Your task to perform on an android device: Clear the shopping cart on target.com. Image 0: 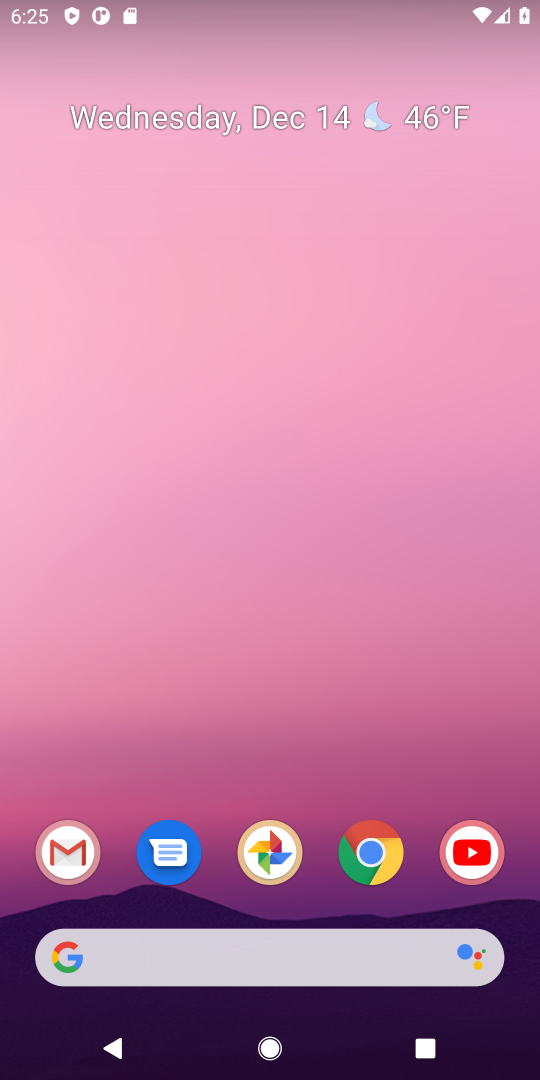
Step 0: click (373, 855)
Your task to perform on an android device: Clear the shopping cart on target.com. Image 1: 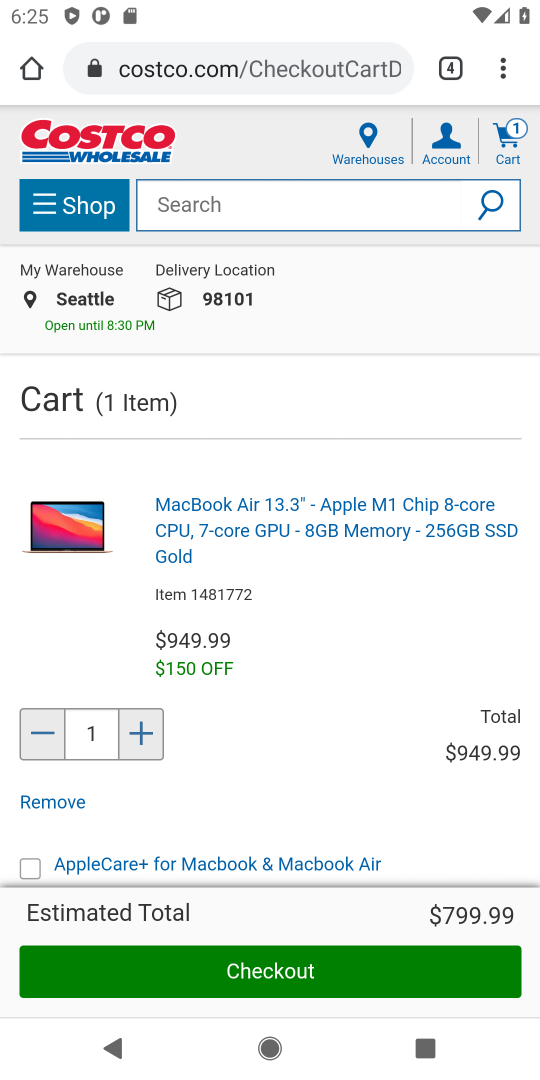
Step 1: click (444, 70)
Your task to perform on an android device: Clear the shopping cart on target.com. Image 2: 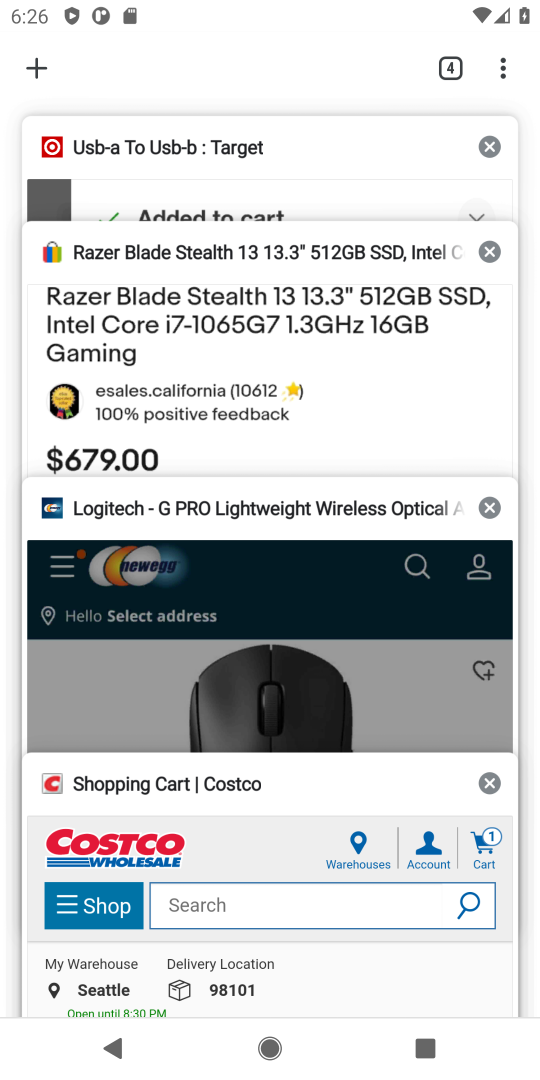
Step 2: click (319, 150)
Your task to perform on an android device: Clear the shopping cart on target.com. Image 3: 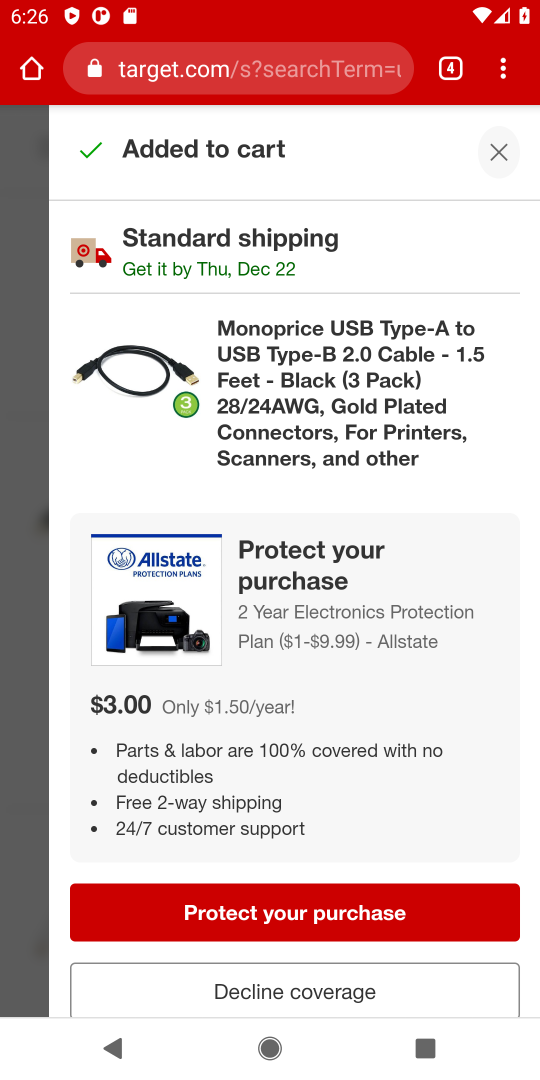
Step 3: click (504, 150)
Your task to perform on an android device: Clear the shopping cart on target.com. Image 4: 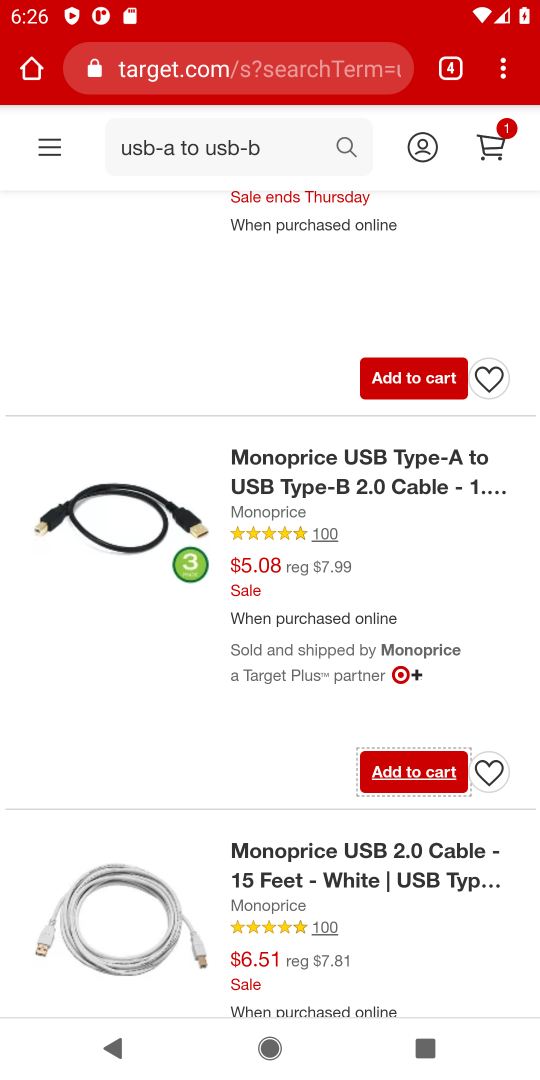
Step 4: click (490, 139)
Your task to perform on an android device: Clear the shopping cart on target.com. Image 5: 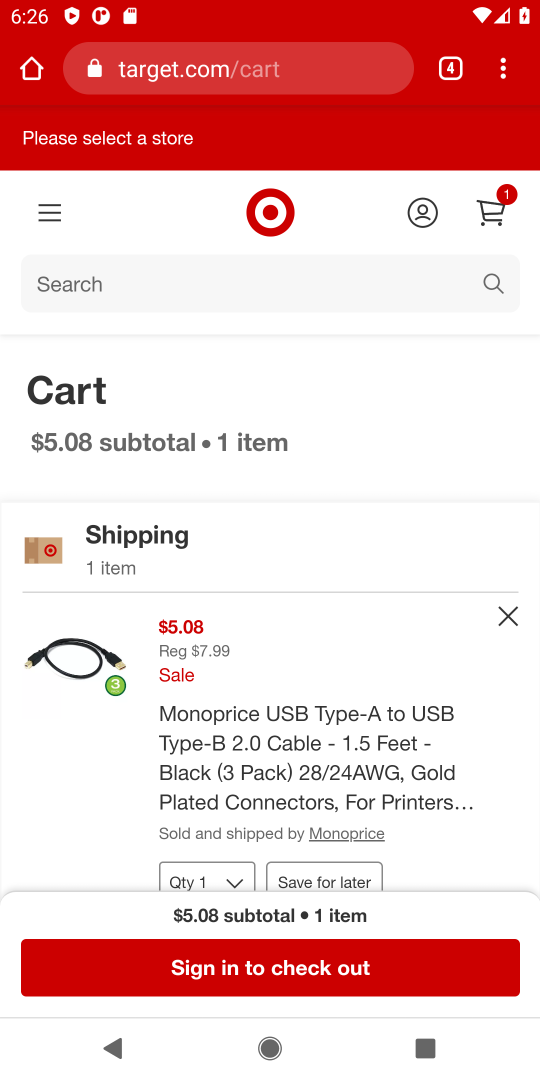
Step 5: click (508, 611)
Your task to perform on an android device: Clear the shopping cart on target.com. Image 6: 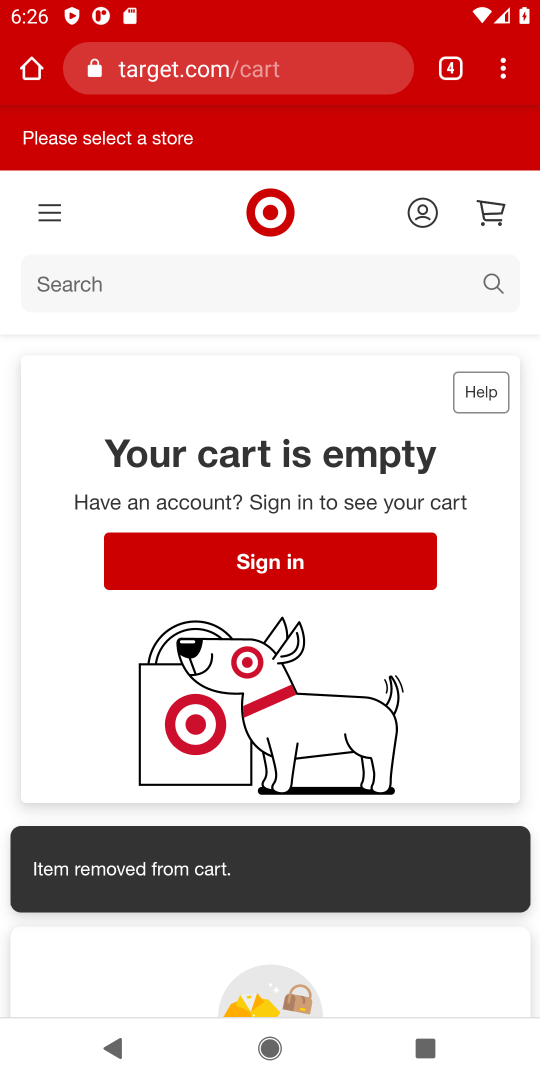
Step 6: task complete